Your task to perform on an android device: toggle notification dots Image 0: 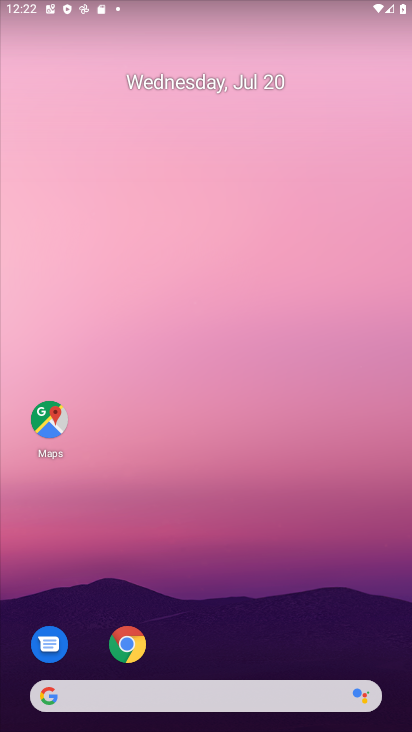
Step 0: drag from (349, 578) to (218, 53)
Your task to perform on an android device: toggle notification dots Image 1: 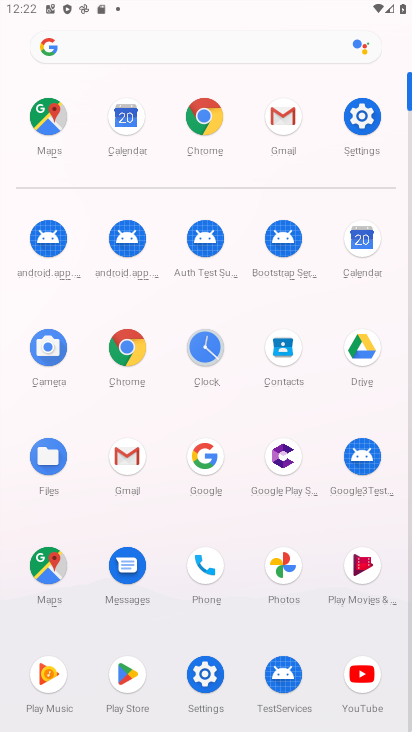
Step 1: click (212, 677)
Your task to perform on an android device: toggle notification dots Image 2: 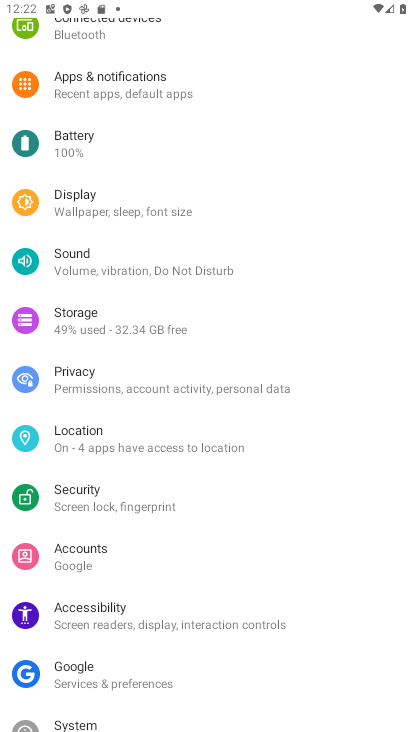
Step 2: click (91, 86)
Your task to perform on an android device: toggle notification dots Image 3: 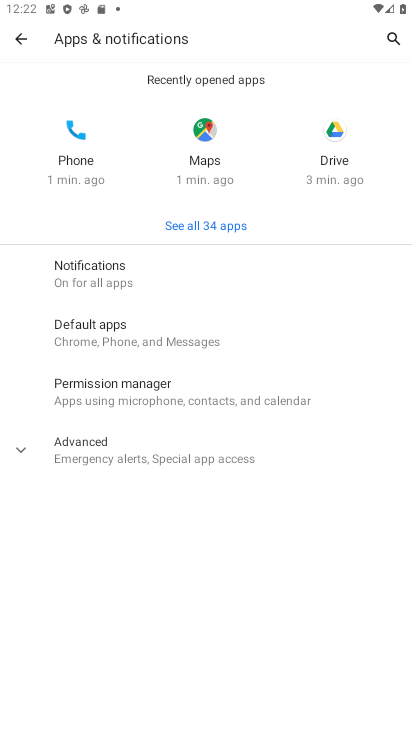
Step 3: click (75, 274)
Your task to perform on an android device: toggle notification dots Image 4: 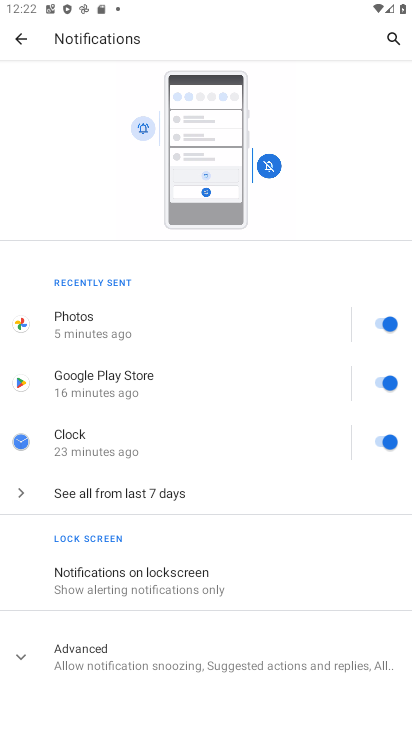
Step 4: click (112, 659)
Your task to perform on an android device: toggle notification dots Image 5: 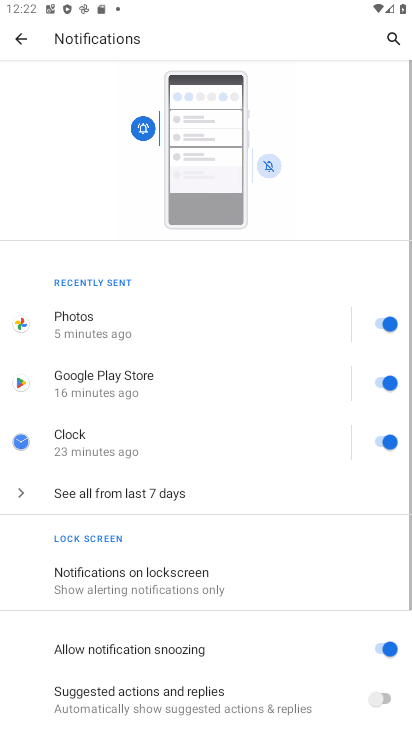
Step 5: drag from (112, 659) to (88, 276)
Your task to perform on an android device: toggle notification dots Image 6: 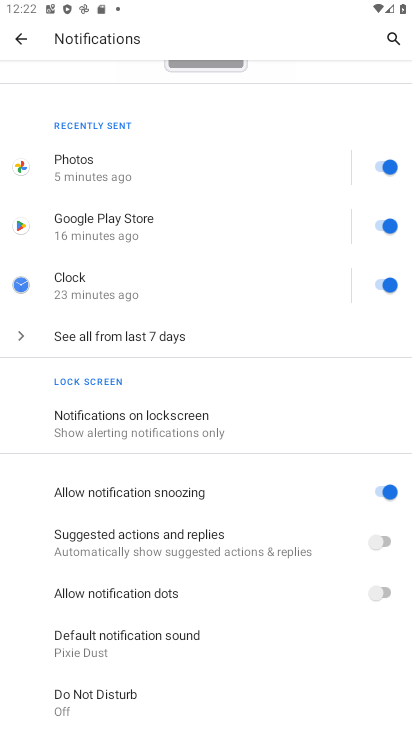
Step 6: click (326, 592)
Your task to perform on an android device: toggle notification dots Image 7: 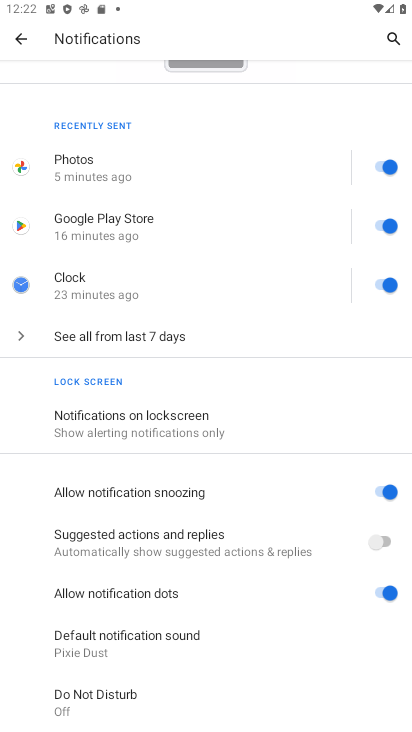
Step 7: task complete